Your task to perform on an android device: Go to Yahoo.com Image 0: 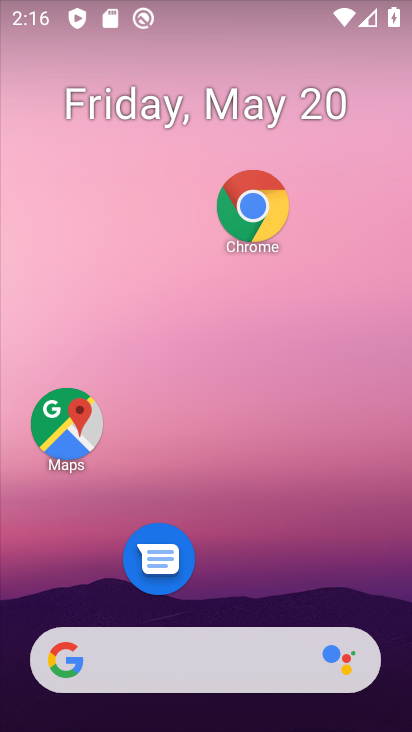
Step 0: drag from (249, 604) to (221, 7)
Your task to perform on an android device: Go to Yahoo.com Image 1: 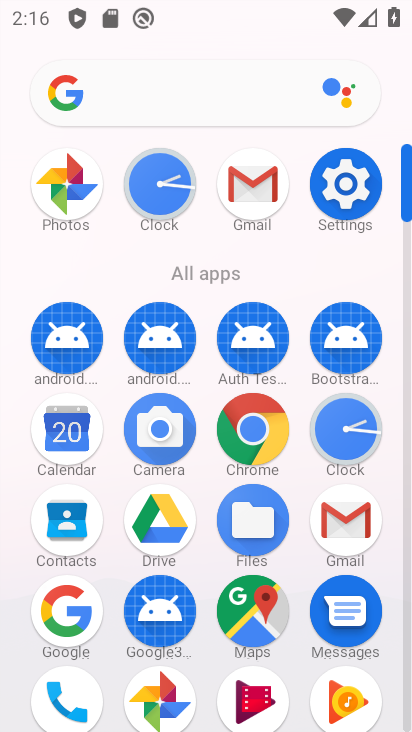
Step 1: click (256, 457)
Your task to perform on an android device: Go to Yahoo.com Image 2: 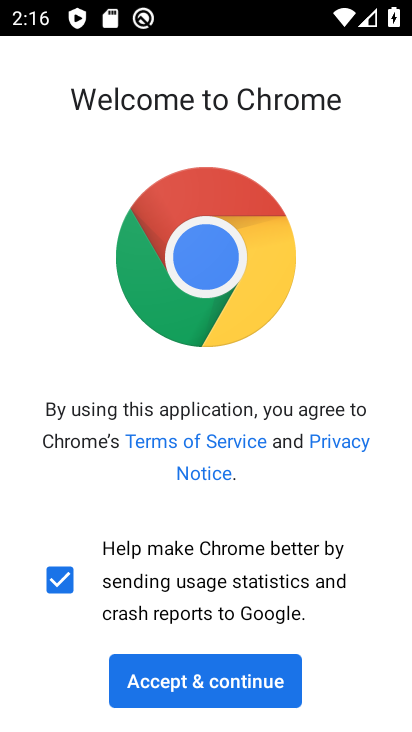
Step 2: click (246, 660)
Your task to perform on an android device: Go to Yahoo.com Image 3: 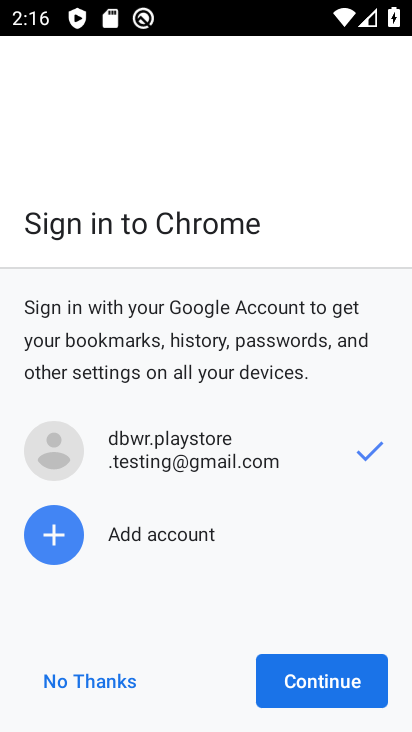
Step 3: click (319, 681)
Your task to perform on an android device: Go to Yahoo.com Image 4: 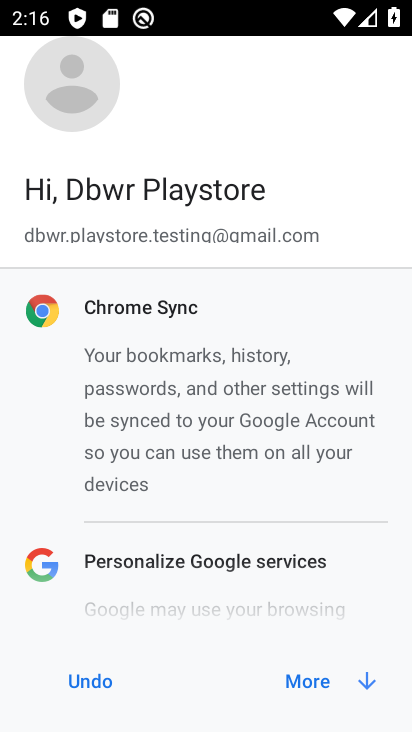
Step 4: click (325, 672)
Your task to perform on an android device: Go to Yahoo.com Image 5: 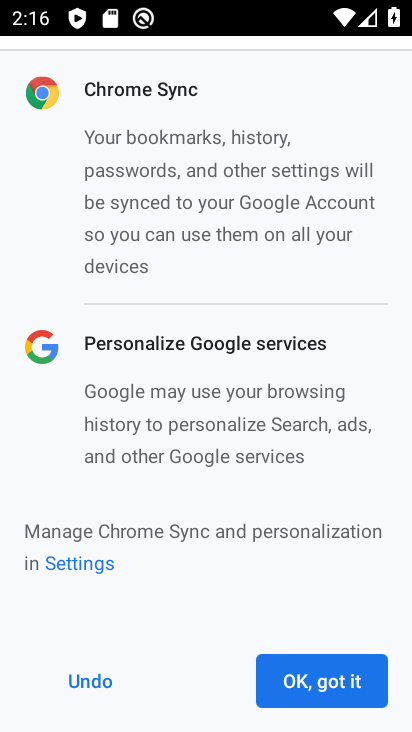
Step 5: click (325, 672)
Your task to perform on an android device: Go to Yahoo.com Image 6: 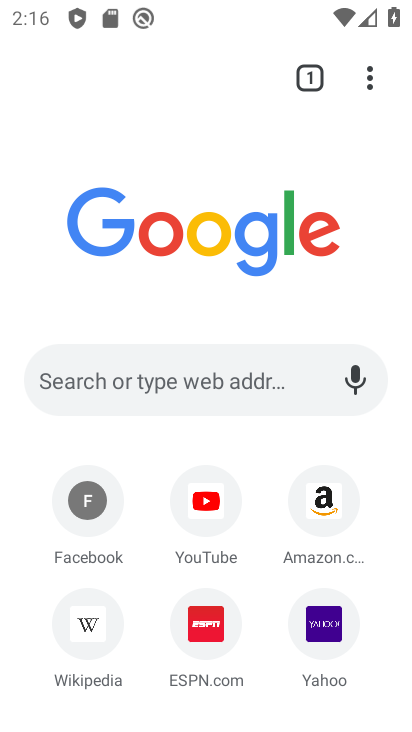
Step 6: click (340, 652)
Your task to perform on an android device: Go to Yahoo.com Image 7: 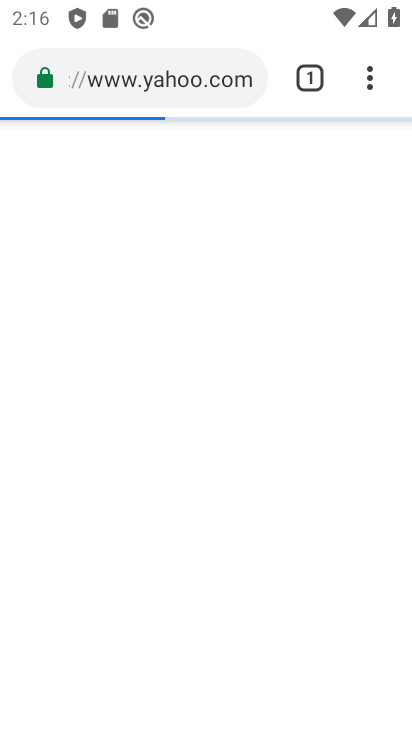
Step 7: task complete